Your task to perform on an android device: toggle sleep mode Image 0: 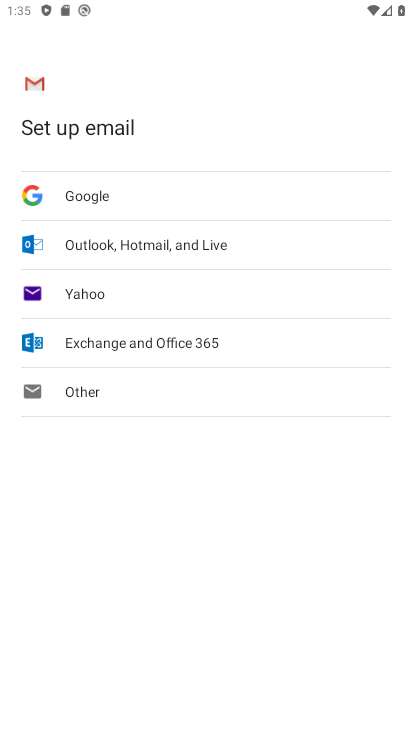
Step 0: press home button
Your task to perform on an android device: toggle sleep mode Image 1: 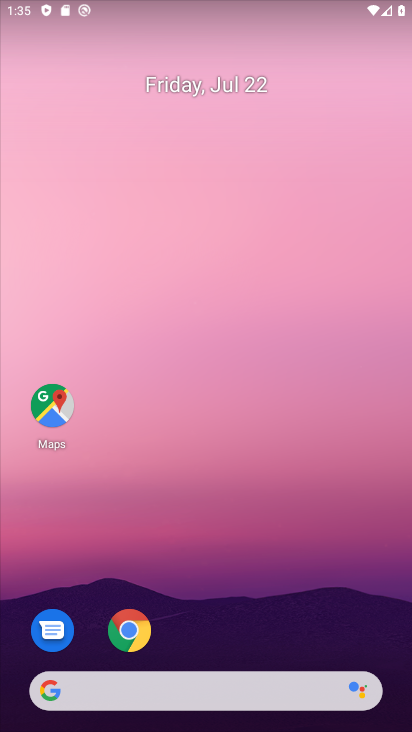
Step 1: drag from (209, 626) to (264, 125)
Your task to perform on an android device: toggle sleep mode Image 2: 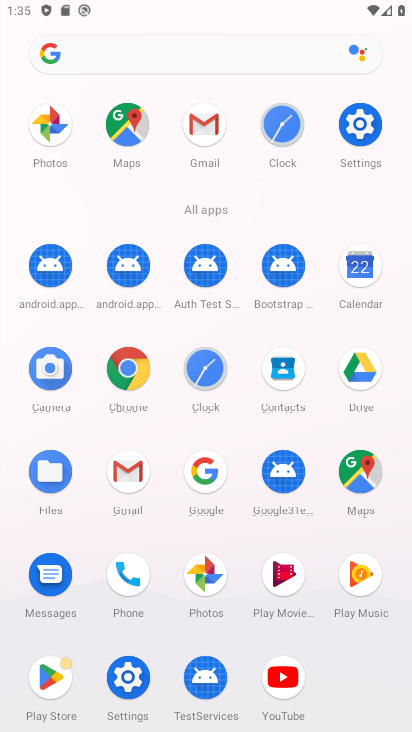
Step 2: click (362, 127)
Your task to perform on an android device: toggle sleep mode Image 3: 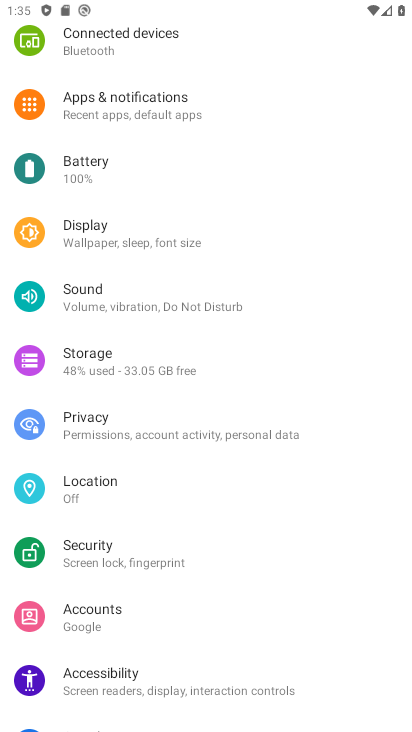
Step 3: click (146, 239)
Your task to perform on an android device: toggle sleep mode Image 4: 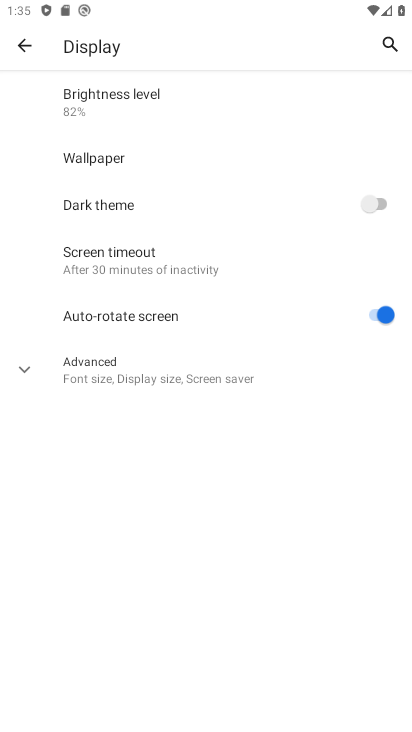
Step 4: click (128, 264)
Your task to perform on an android device: toggle sleep mode Image 5: 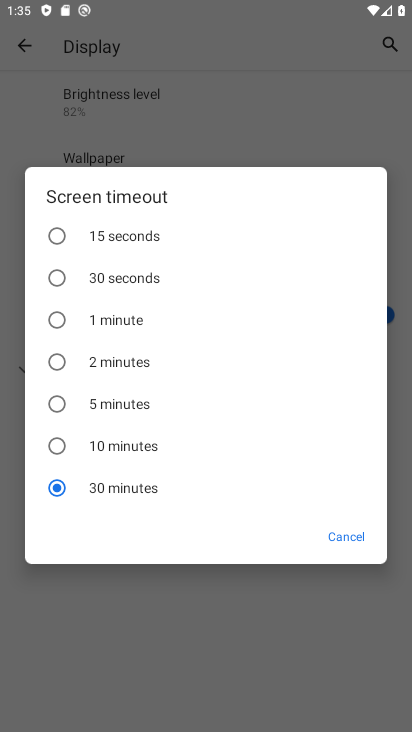
Step 5: click (55, 357)
Your task to perform on an android device: toggle sleep mode Image 6: 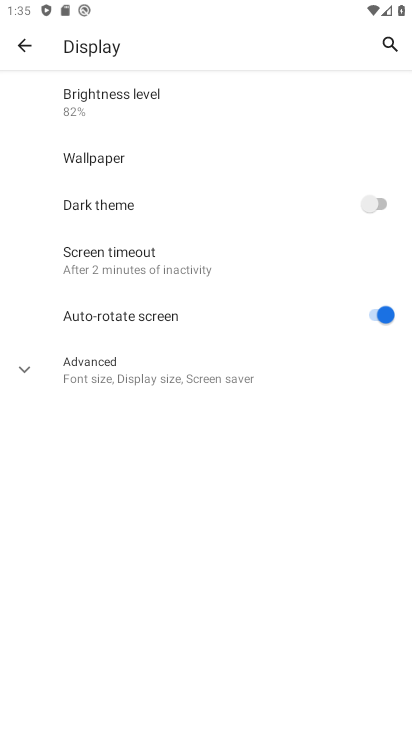
Step 6: task complete